Your task to perform on an android device: Open Google Image 0: 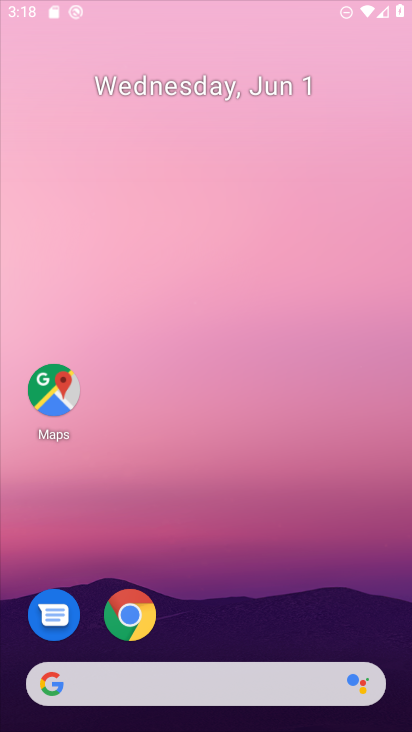
Step 0: press home button
Your task to perform on an android device: Open Google Image 1: 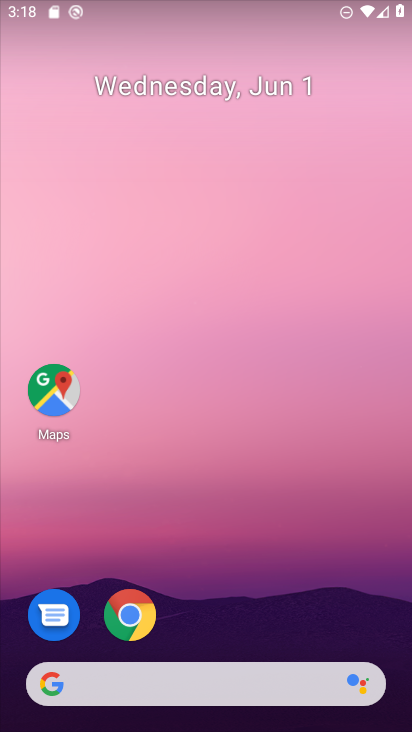
Step 1: drag from (224, 647) to (251, 90)
Your task to perform on an android device: Open Google Image 2: 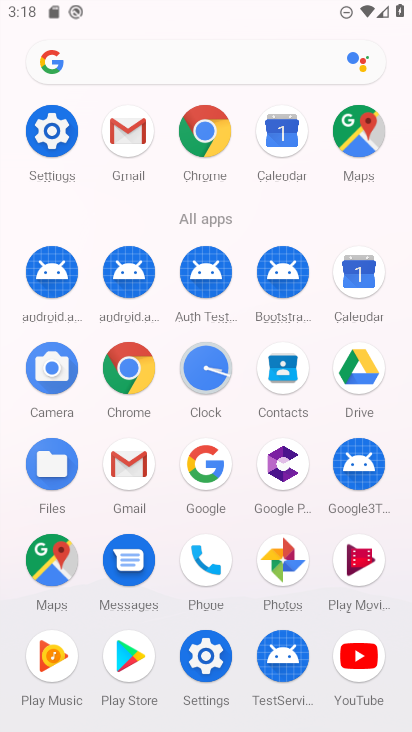
Step 2: click (203, 459)
Your task to perform on an android device: Open Google Image 3: 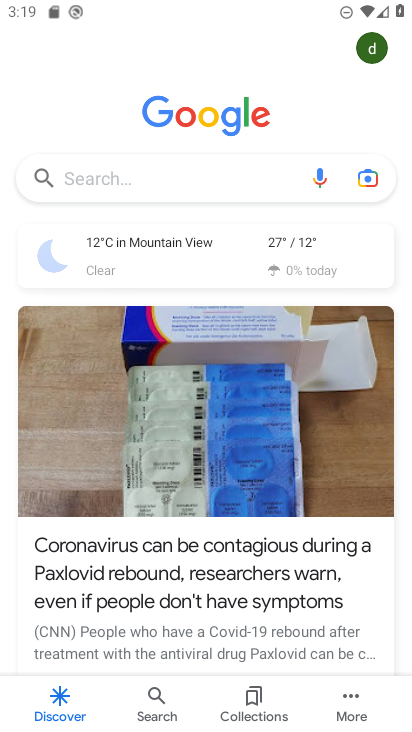
Step 3: task complete